Your task to perform on an android device: open a bookmark in the chrome app Image 0: 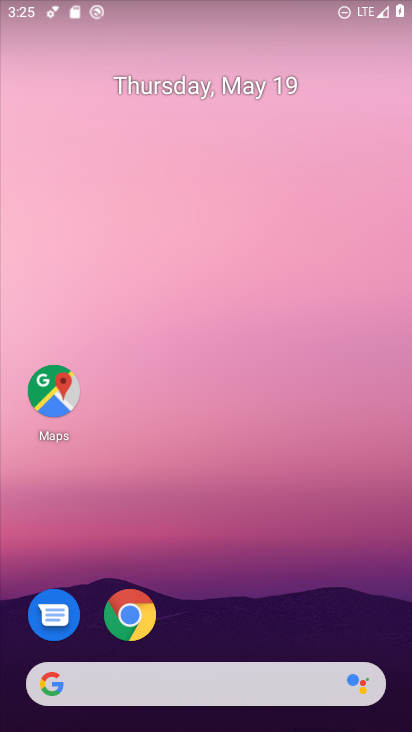
Step 0: click (134, 618)
Your task to perform on an android device: open a bookmark in the chrome app Image 1: 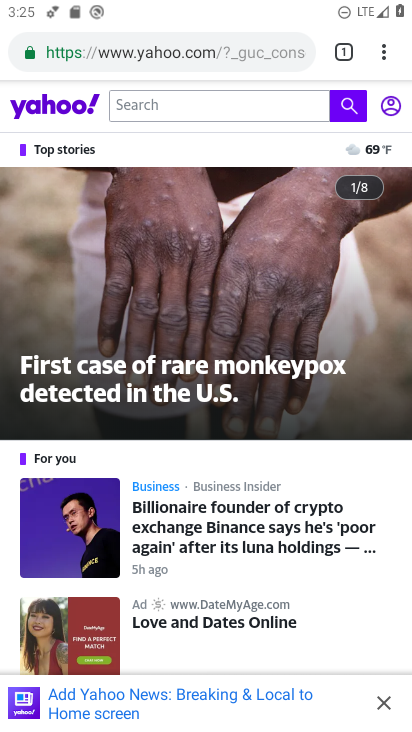
Step 1: click (388, 63)
Your task to perform on an android device: open a bookmark in the chrome app Image 2: 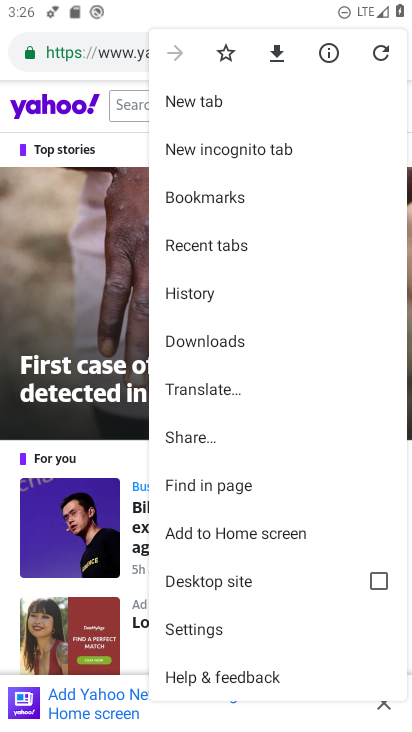
Step 2: click (256, 192)
Your task to perform on an android device: open a bookmark in the chrome app Image 3: 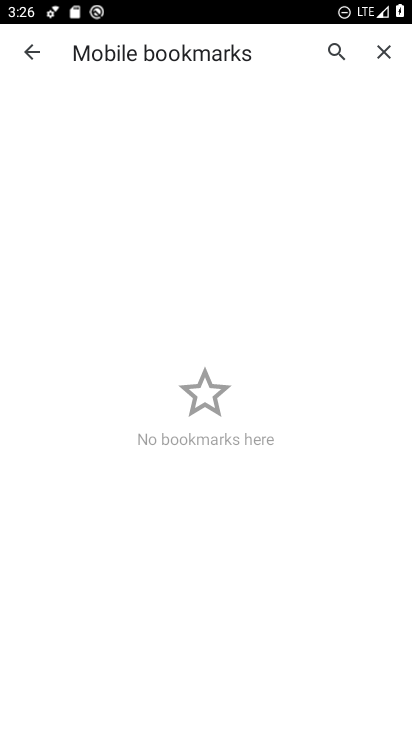
Step 3: task complete